Your task to perform on an android device: Search for "razer blade" on bestbuy.com, select the first entry, and add it to the cart. Image 0: 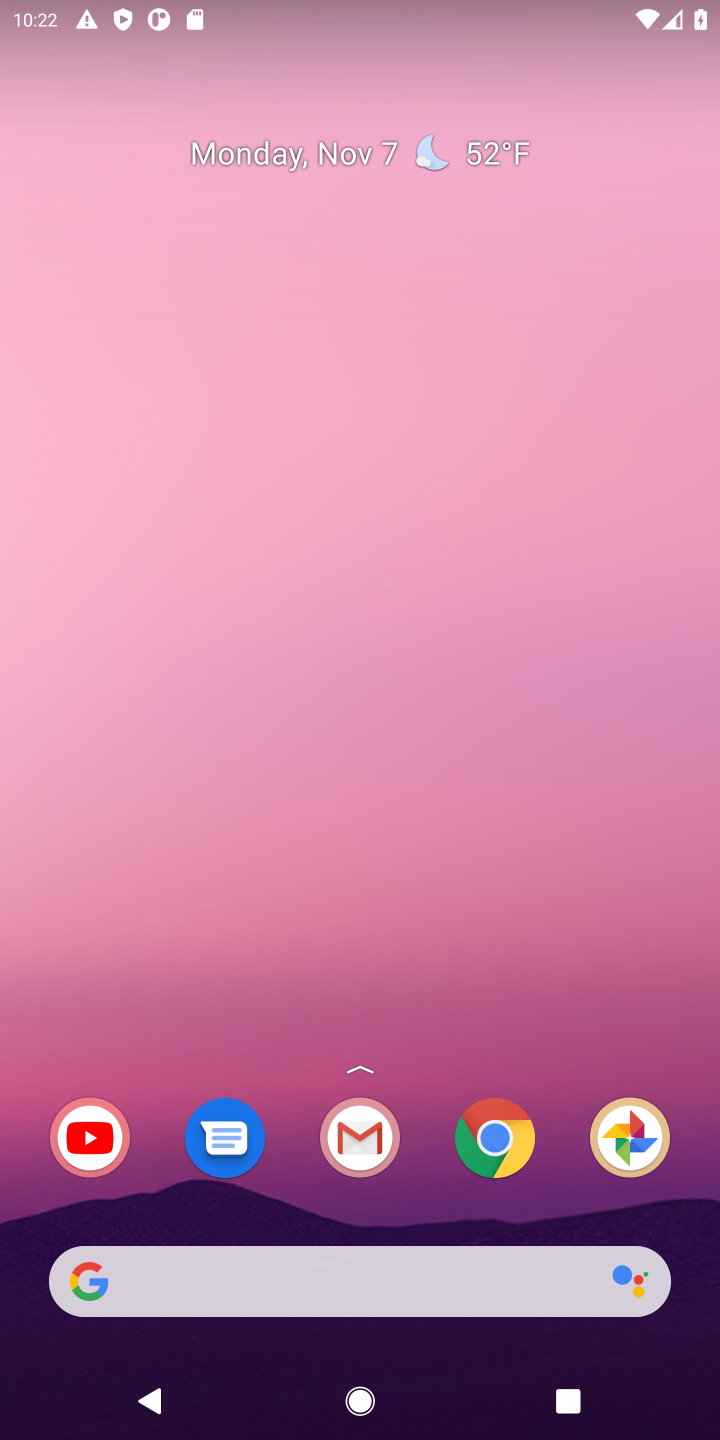
Step 0: click (481, 1146)
Your task to perform on an android device: Search for "razer blade" on bestbuy.com, select the first entry, and add it to the cart. Image 1: 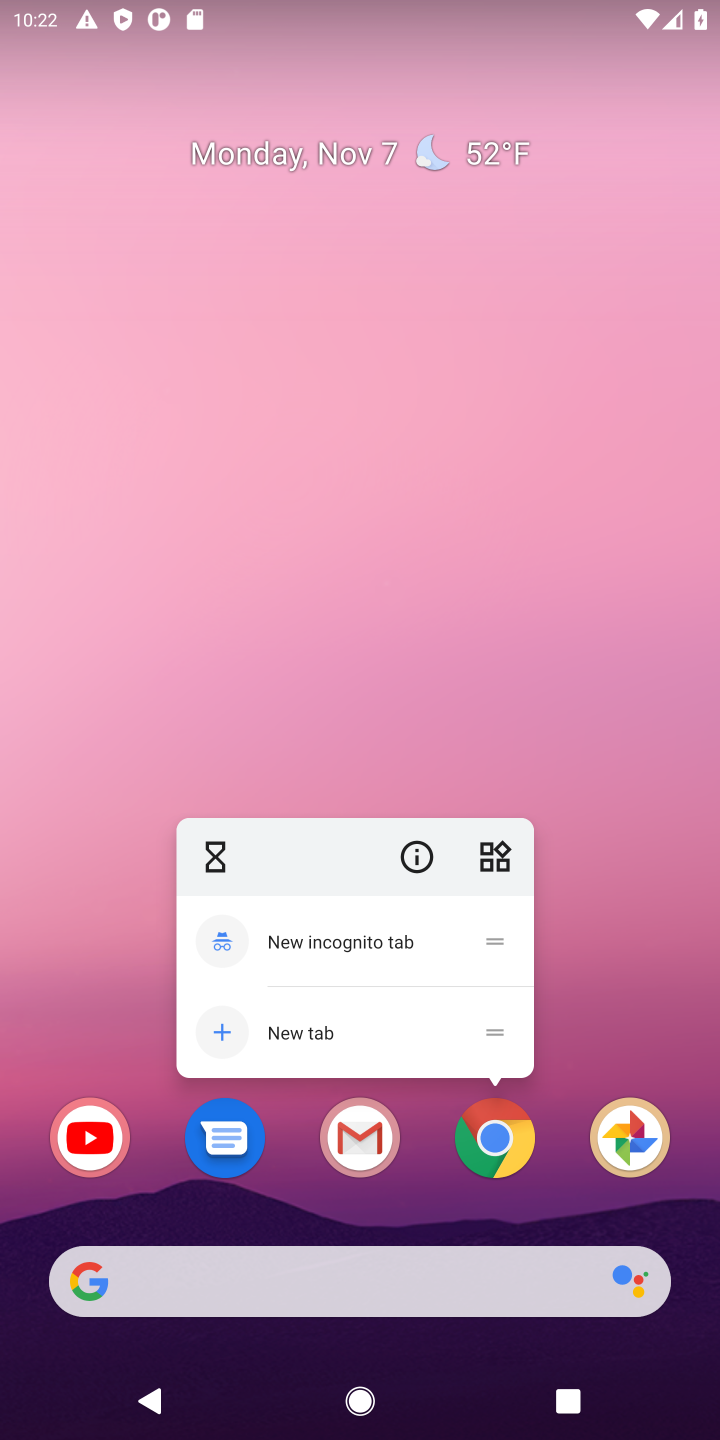
Step 1: click (508, 1141)
Your task to perform on an android device: Search for "razer blade" on bestbuy.com, select the first entry, and add it to the cart. Image 2: 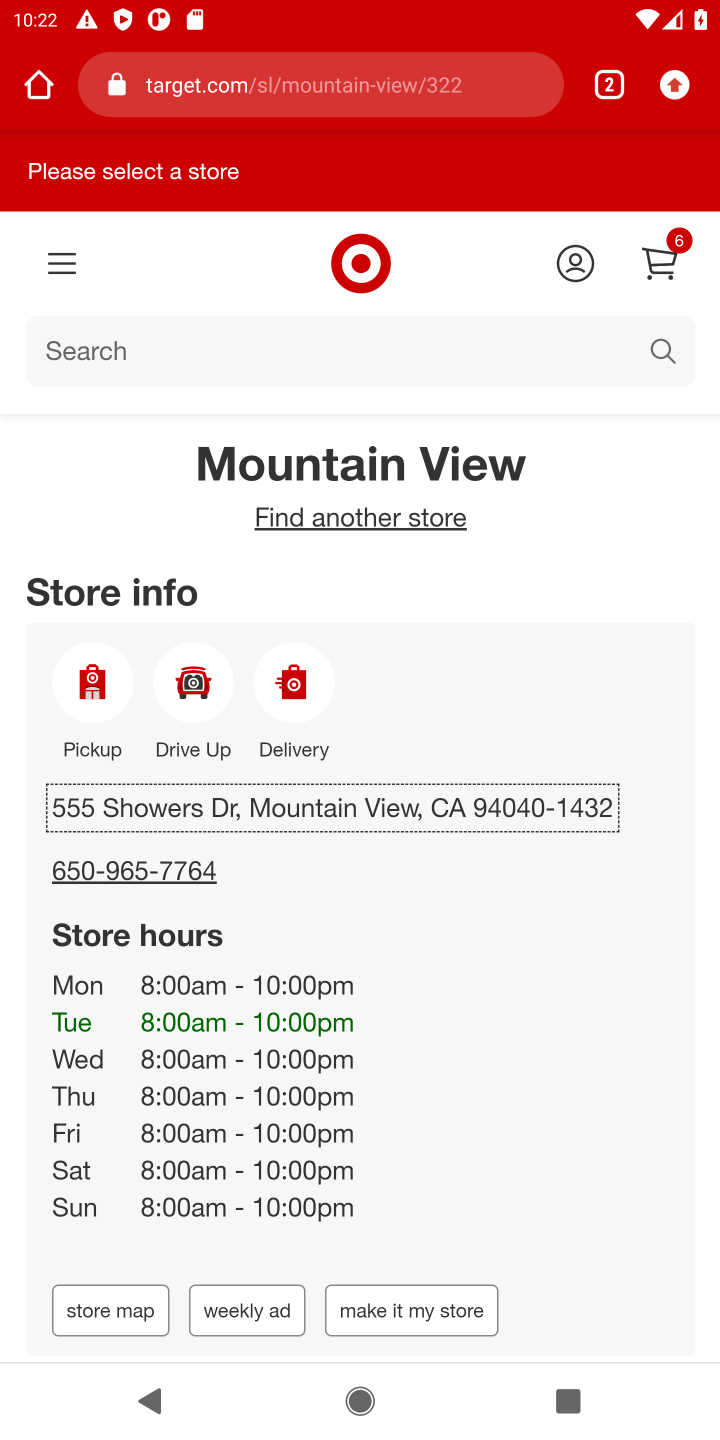
Step 2: click (380, 88)
Your task to perform on an android device: Search for "razer blade" on bestbuy.com, select the first entry, and add it to the cart. Image 3: 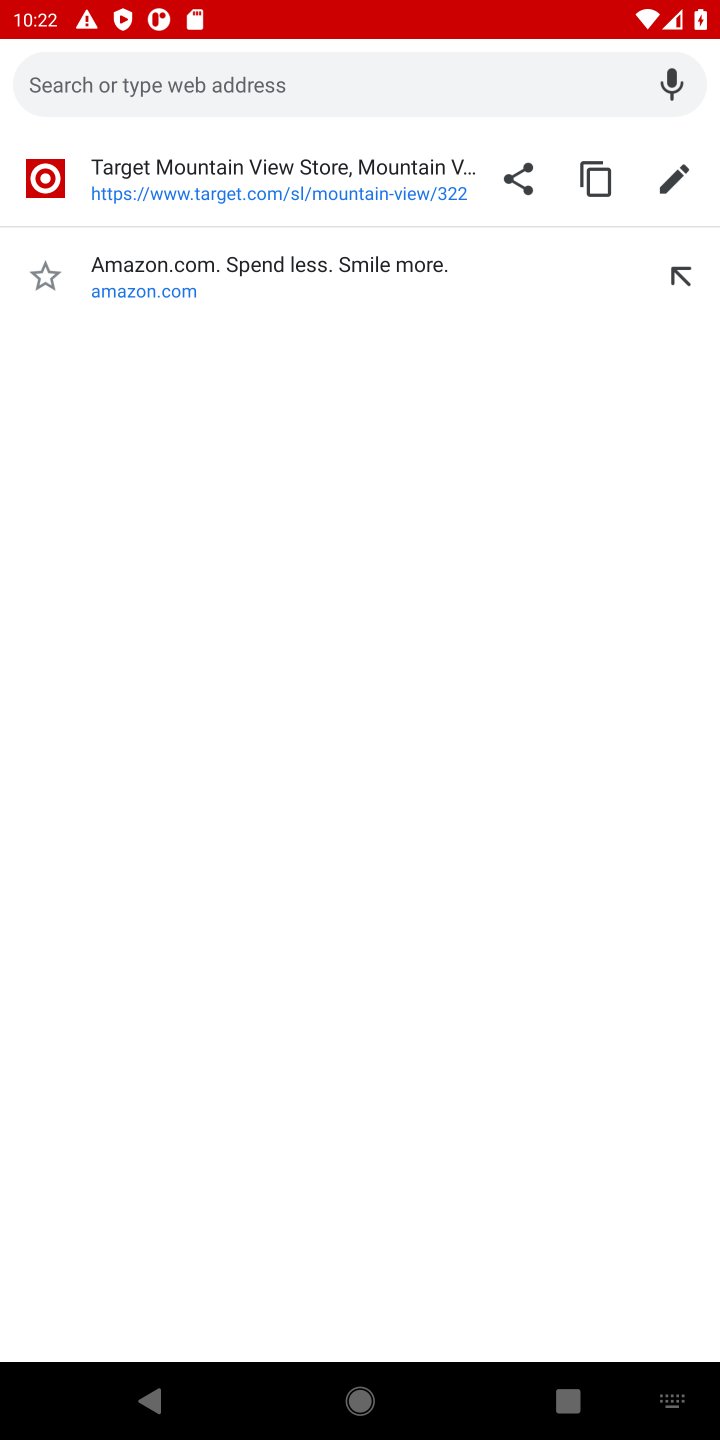
Step 3: type "bestbuy"
Your task to perform on an android device: Search for "razer blade" on bestbuy.com, select the first entry, and add it to the cart. Image 4: 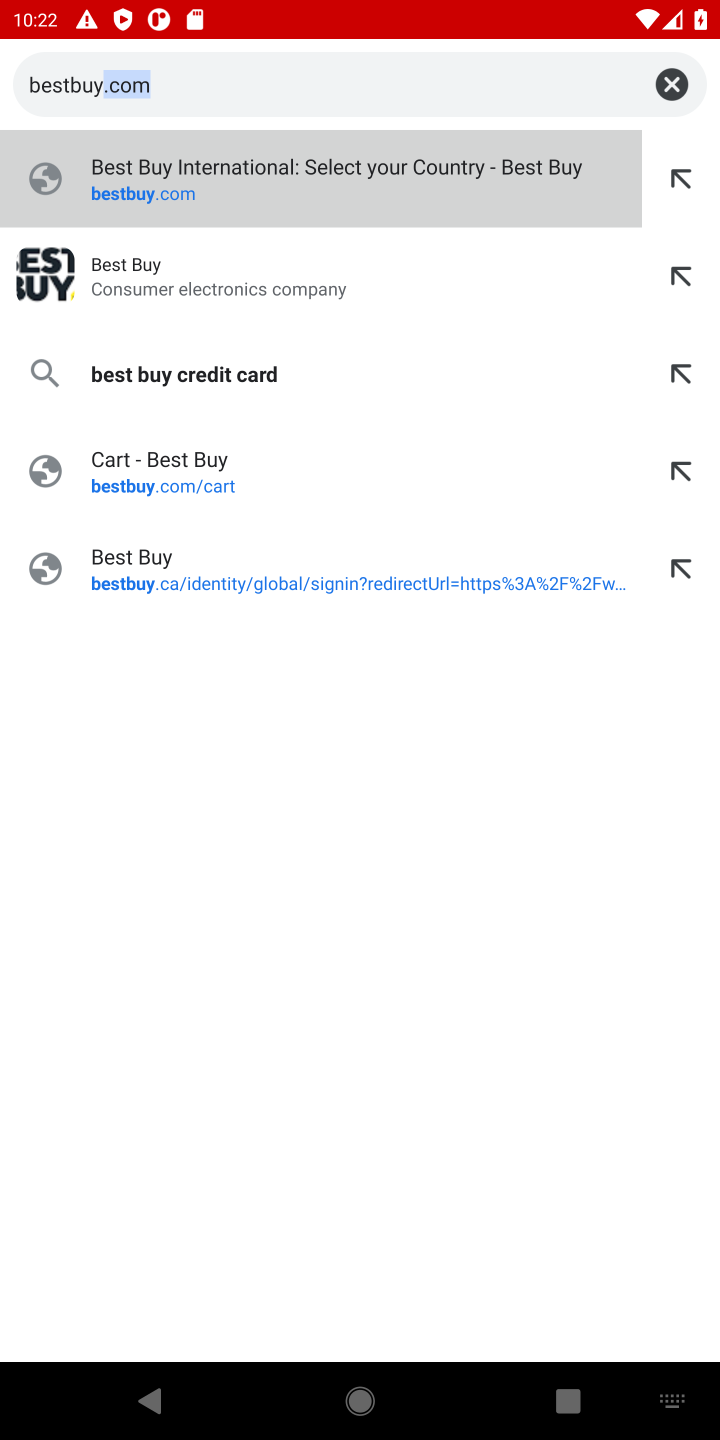
Step 4: click (204, 271)
Your task to perform on an android device: Search for "razer blade" on bestbuy.com, select the first entry, and add it to the cart. Image 5: 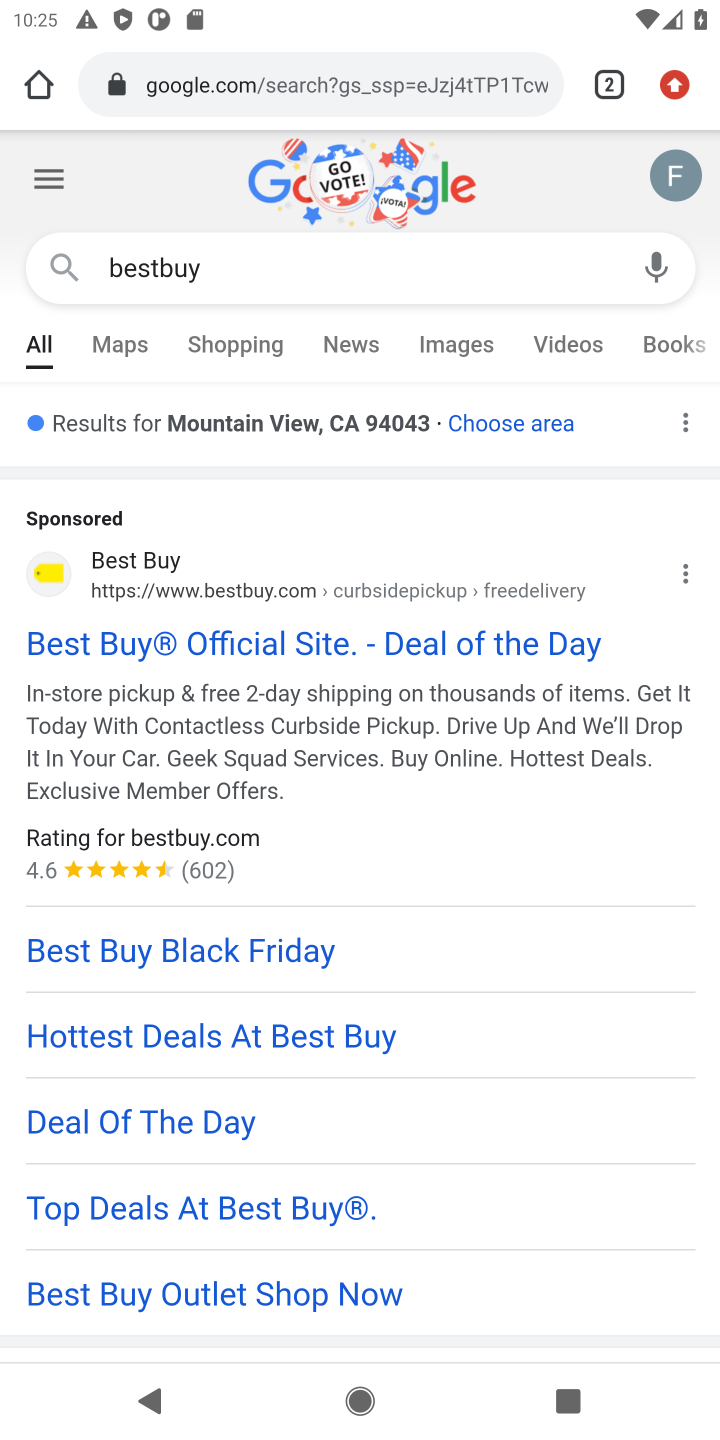
Step 5: click (221, 81)
Your task to perform on an android device: Search for "razer blade" on bestbuy.com, select the first entry, and add it to the cart. Image 6: 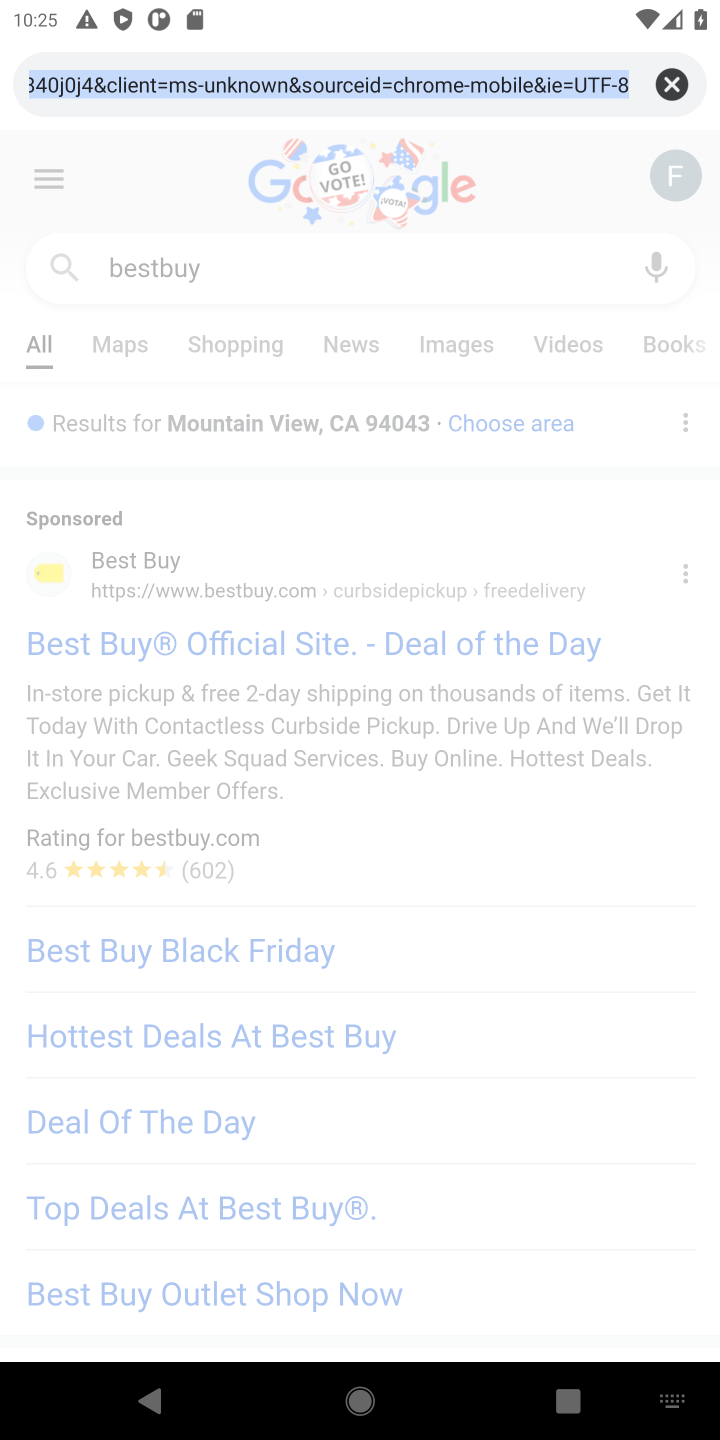
Step 6: click (675, 77)
Your task to perform on an android device: Search for "razer blade" on bestbuy.com, select the first entry, and add it to the cart. Image 7: 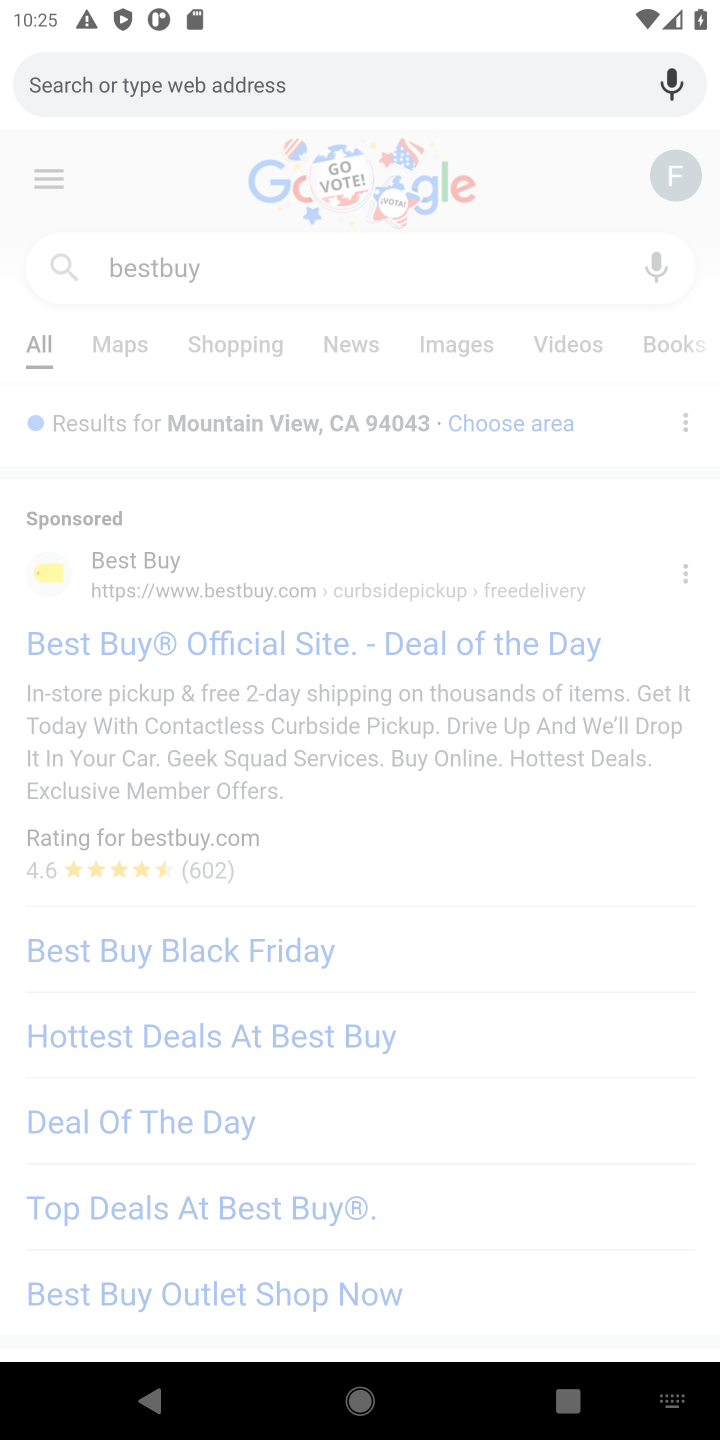
Step 7: type "bestbuy"
Your task to perform on an android device: Search for "razer blade" on bestbuy.com, select the first entry, and add it to the cart. Image 8: 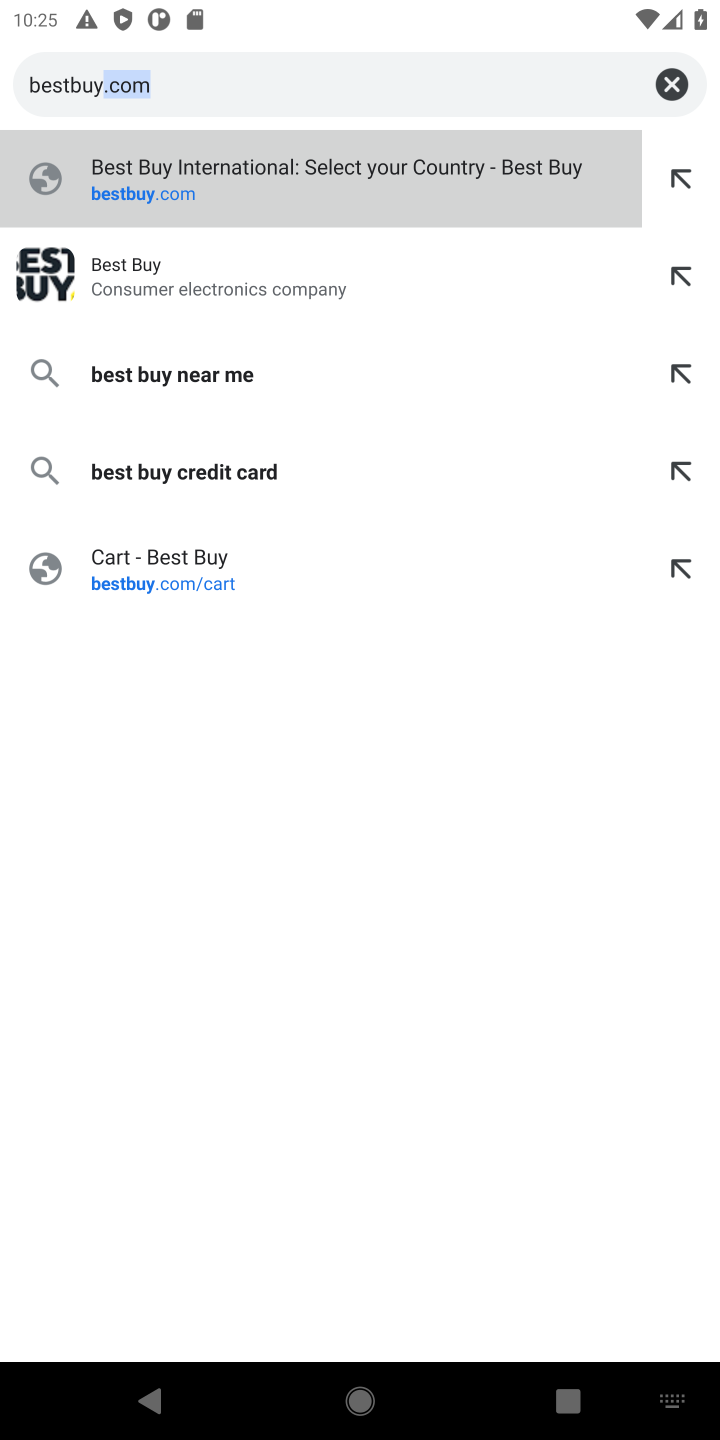
Step 8: click (114, 285)
Your task to perform on an android device: Search for "razer blade" on bestbuy.com, select the first entry, and add it to the cart. Image 9: 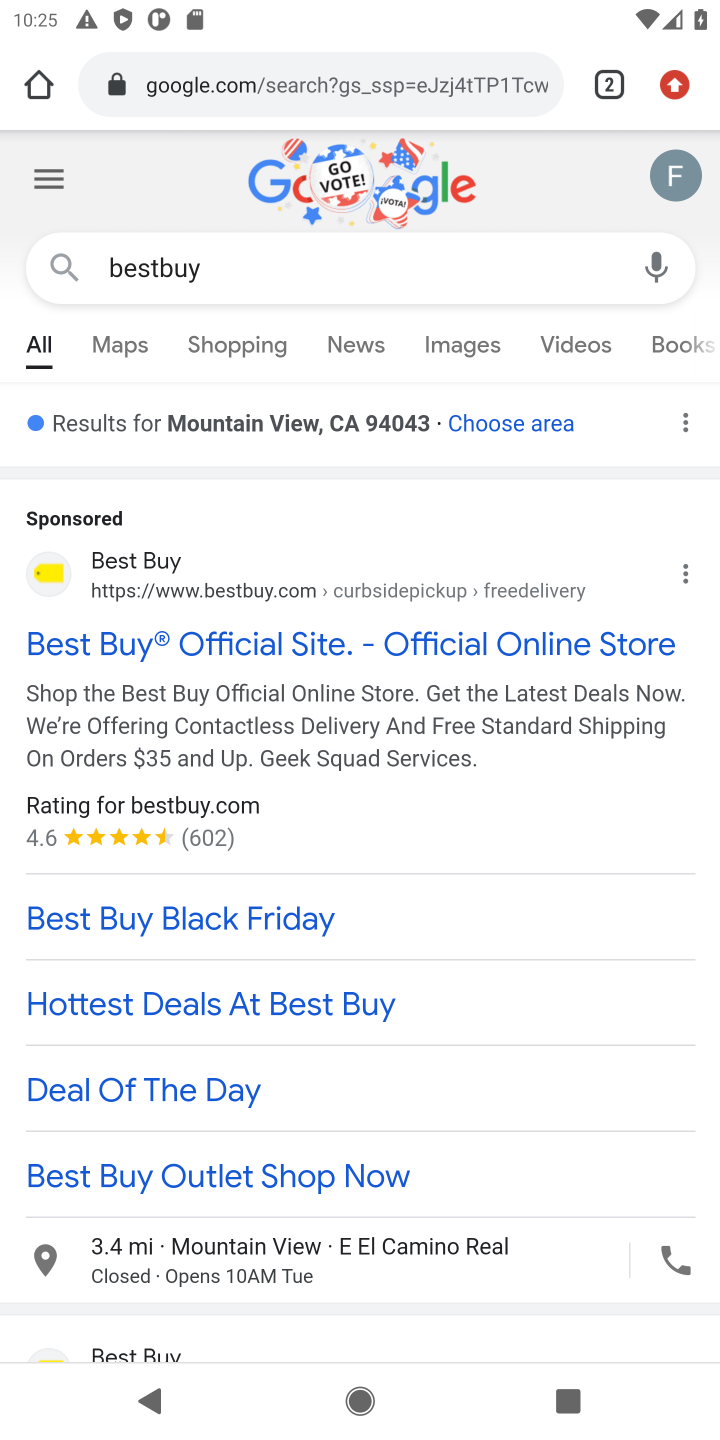
Step 9: drag from (322, 973) to (160, 288)
Your task to perform on an android device: Search for "razer blade" on bestbuy.com, select the first entry, and add it to the cart. Image 10: 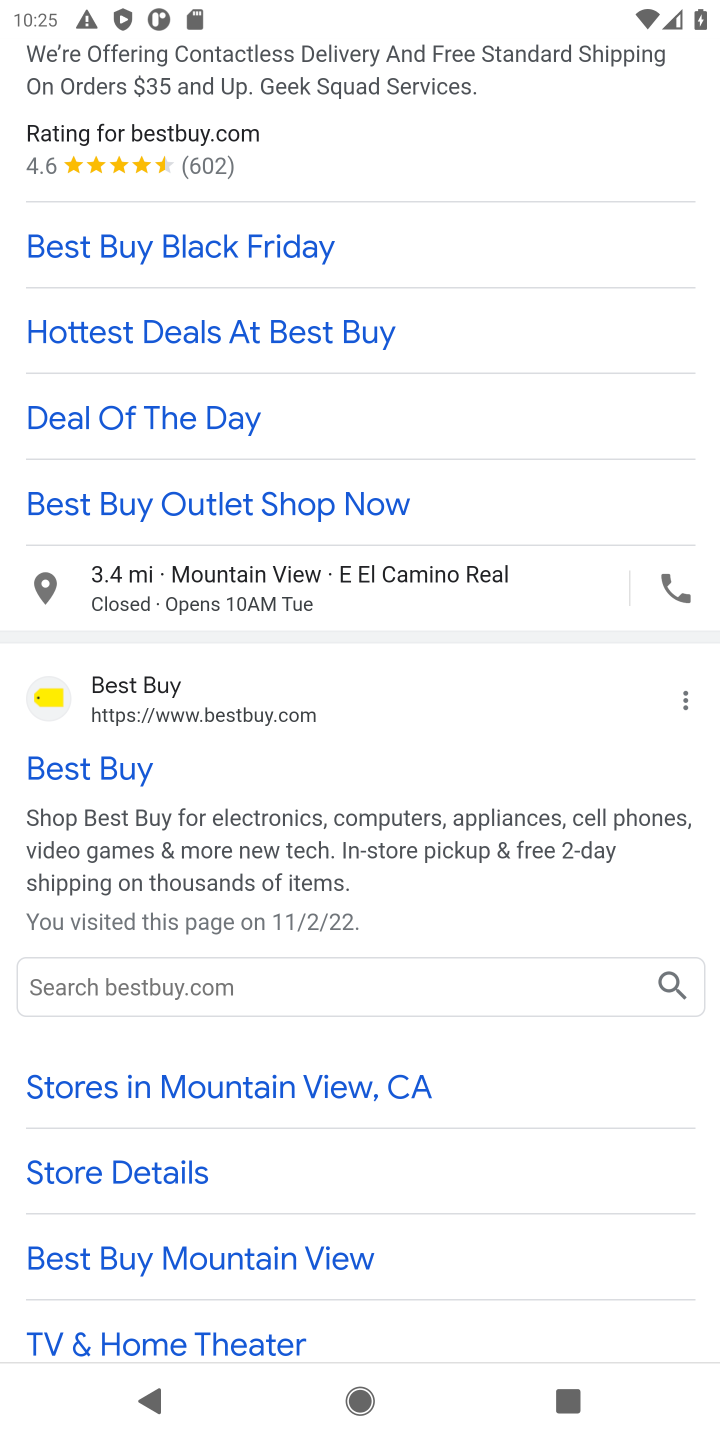
Step 10: click (123, 765)
Your task to perform on an android device: Search for "razer blade" on bestbuy.com, select the first entry, and add it to the cart. Image 11: 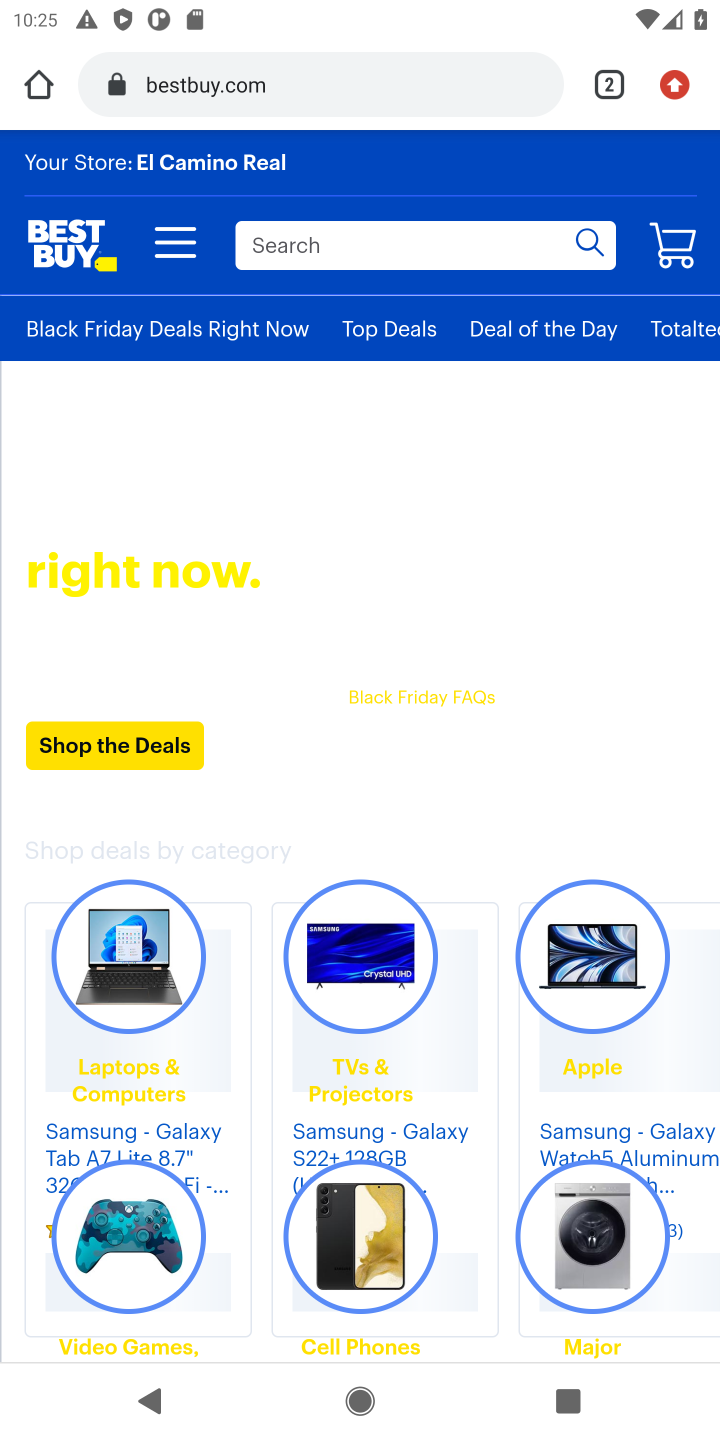
Step 11: click (398, 248)
Your task to perform on an android device: Search for "razer blade" on bestbuy.com, select the first entry, and add it to the cart. Image 12: 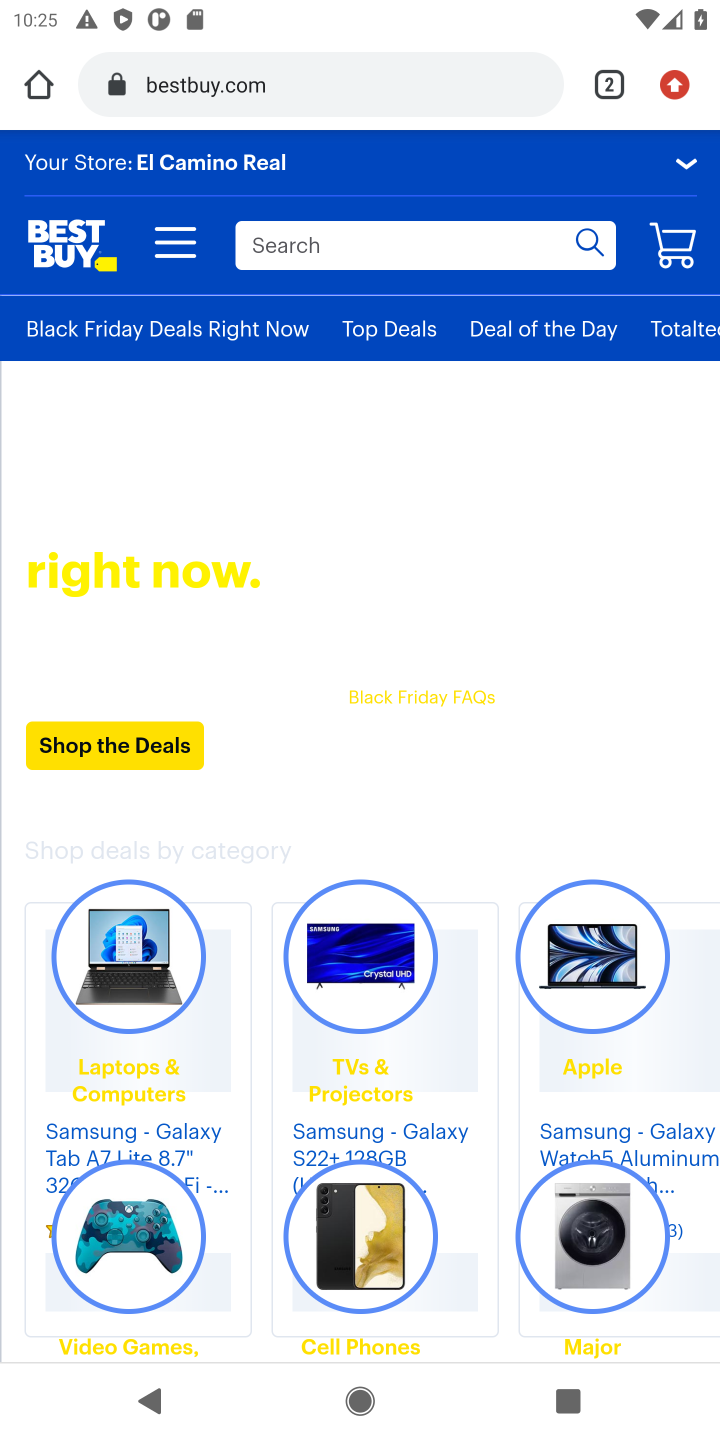
Step 12: click (280, 251)
Your task to perform on an android device: Search for "razer blade" on bestbuy.com, select the first entry, and add it to the cart. Image 13: 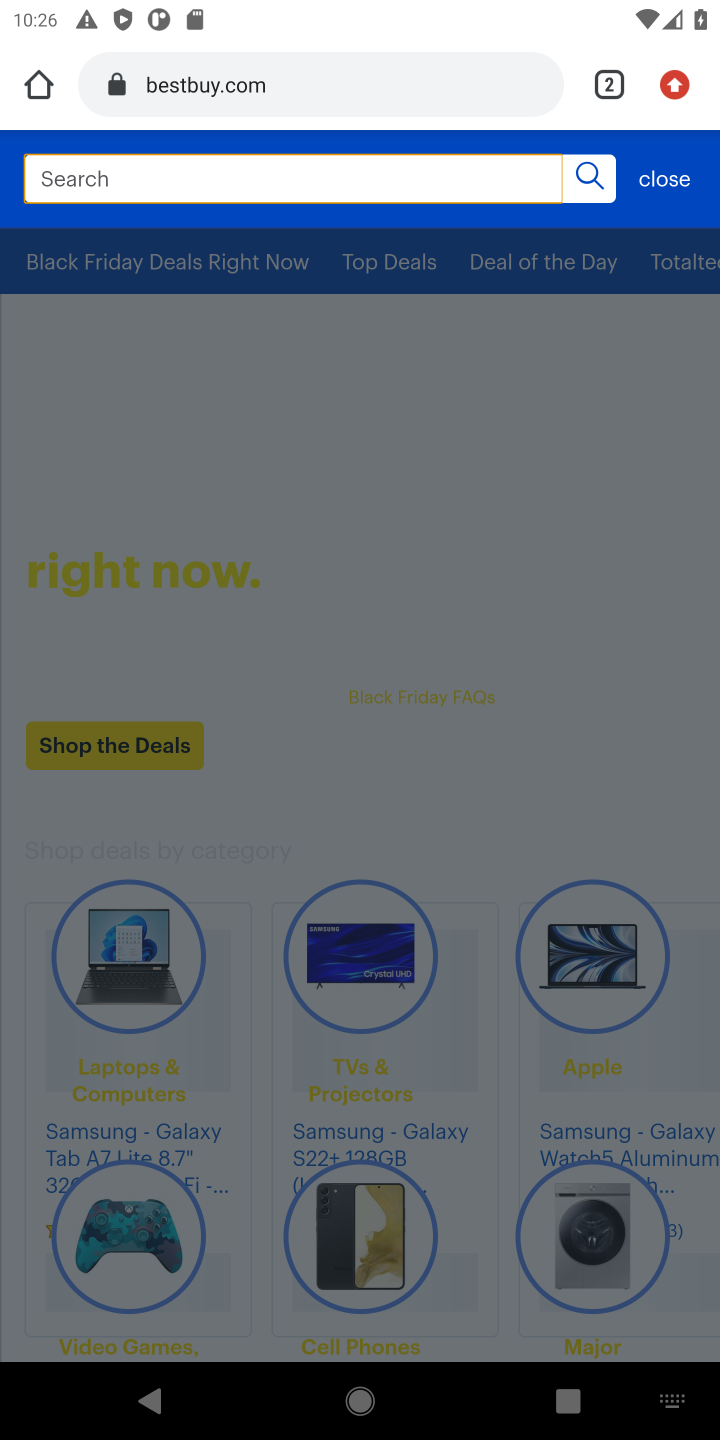
Step 13: type "razer blade"
Your task to perform on an android device: Search for "razer blade" on bestbuy.com, select the first entry, and add it to the cart. Image 14: 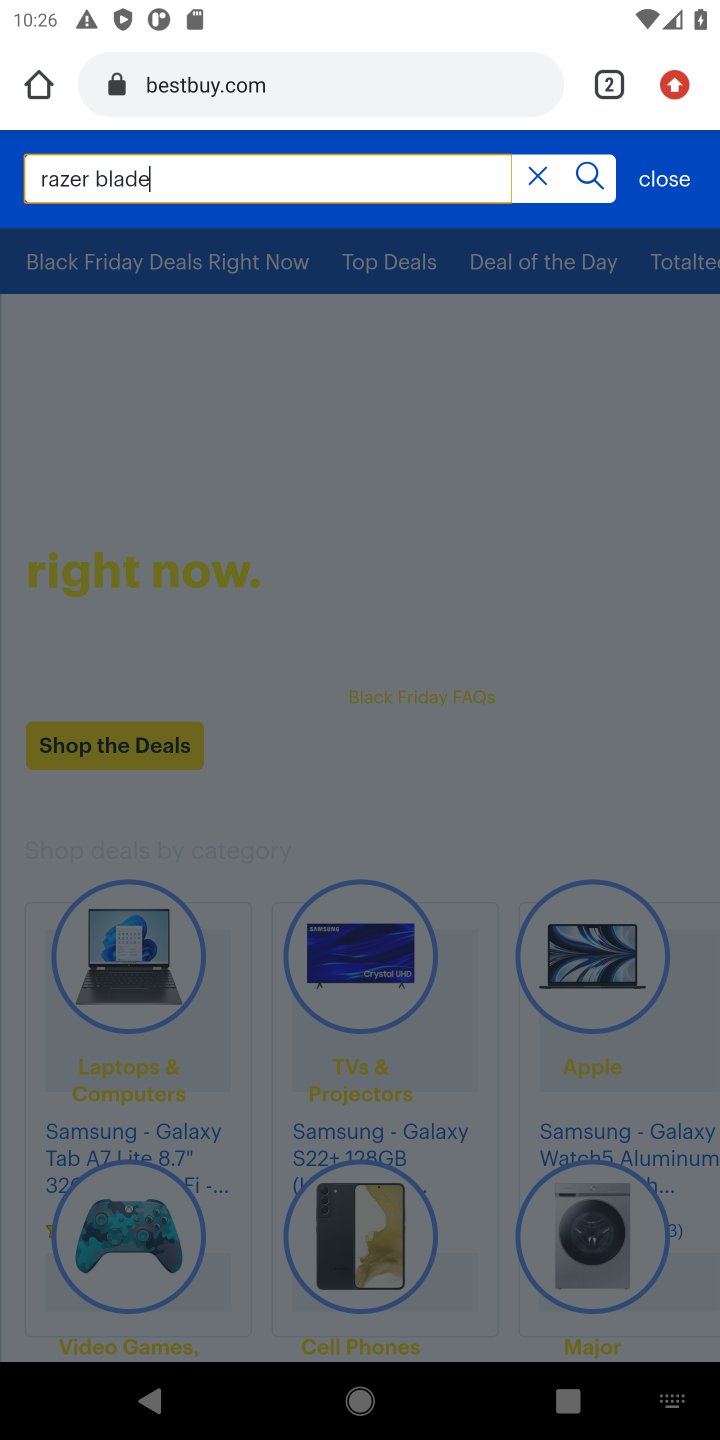
Step 14: type ""
Your task to perform on an android device: Search for "razer blade" on bestbuy.com, select the first entry, and add it to the cart. Image 15: 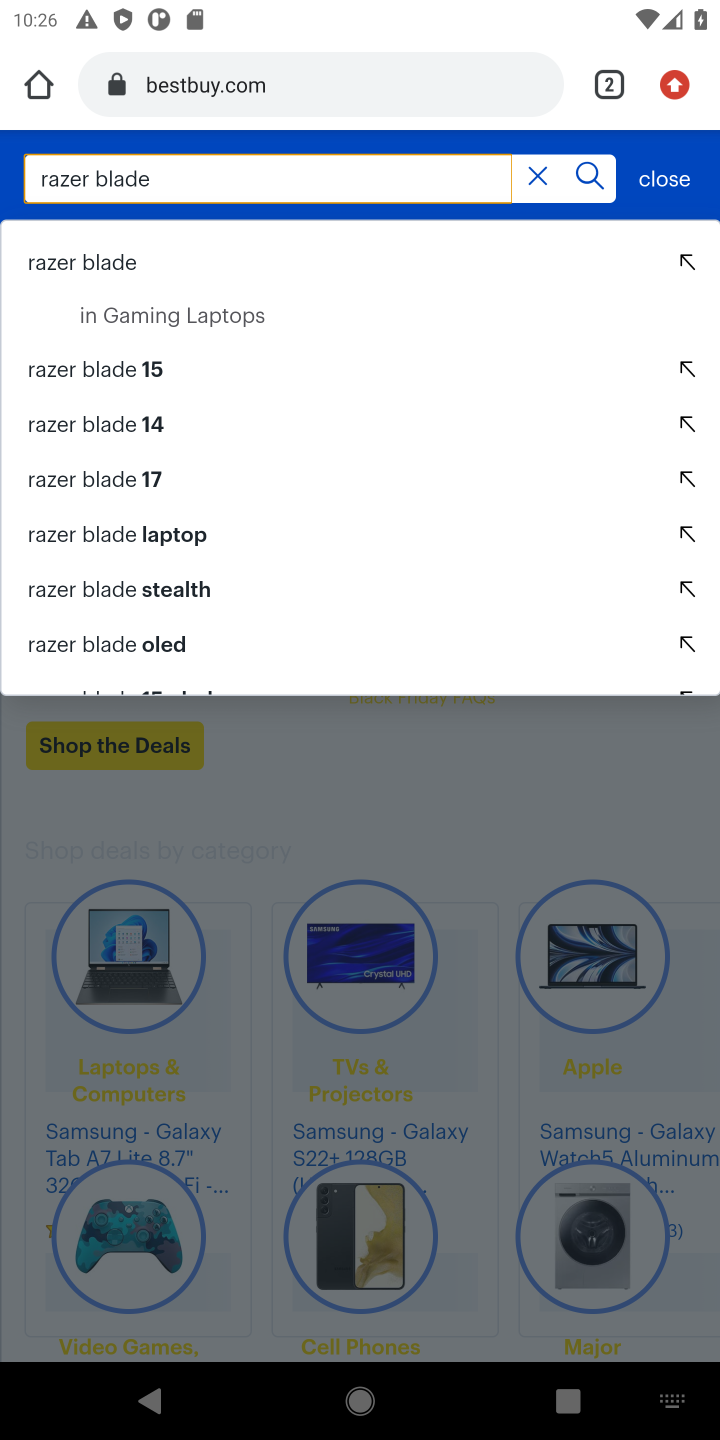
Step 15: click (102, 365)
Your task to perform on an android device: Search for "razer blade" on bestbuy.com, select the first entry, and add it to the cart. Image 16: 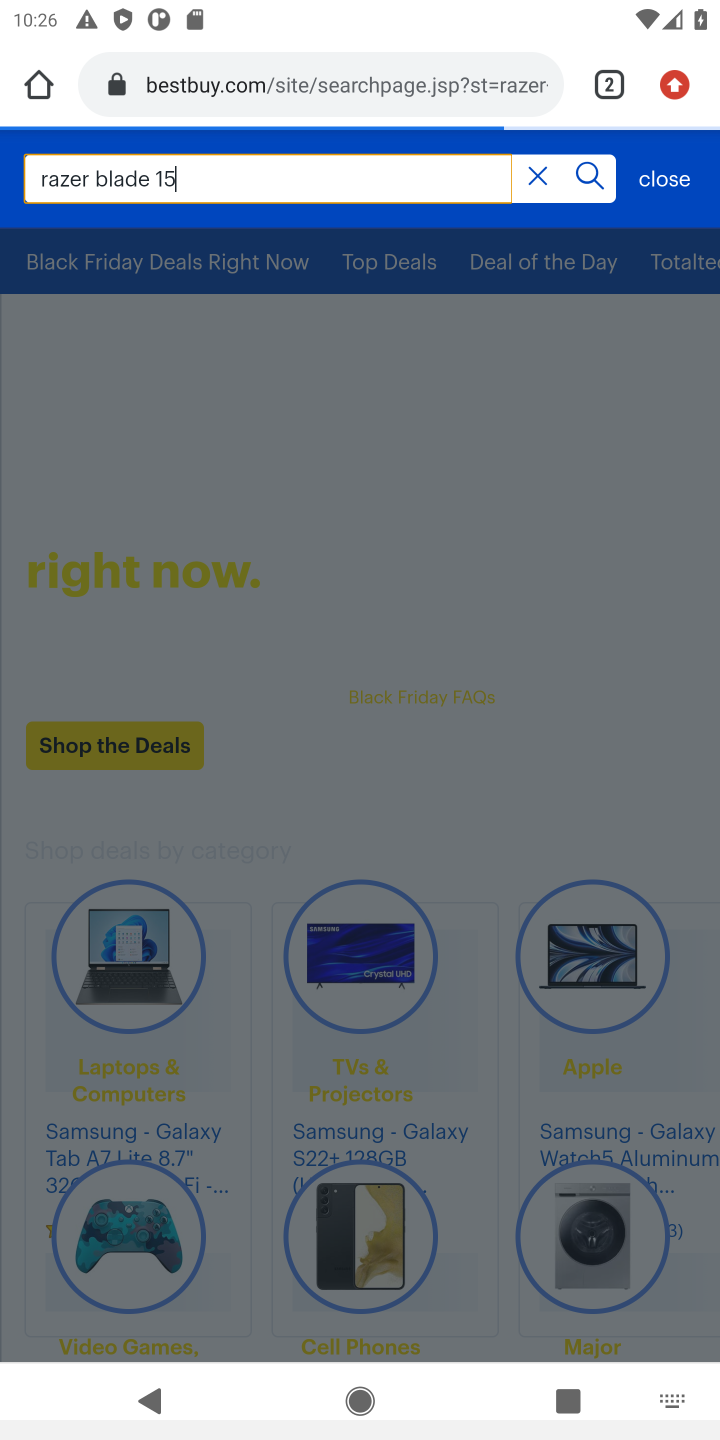
Step 16: click (602, 173)
Your task to perform on an android device: Search for "razer blade" on bestbuy.com, select the first entry, and add it to the cart. Image 17: 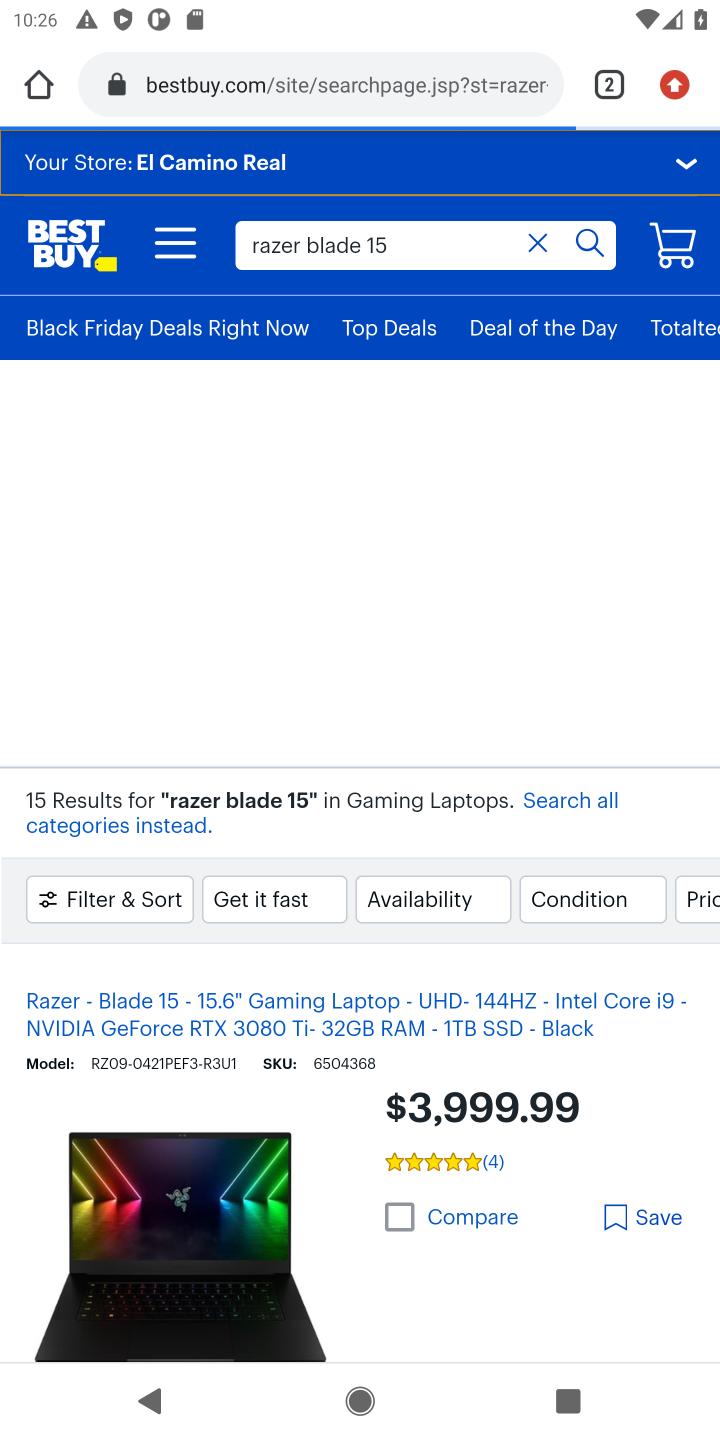
Step 17: click (237, 1232)
Your task to perform on an android device: Search for "razer blade" on bestbuy.com, select the first entry, and add it to the cart. Image 18: 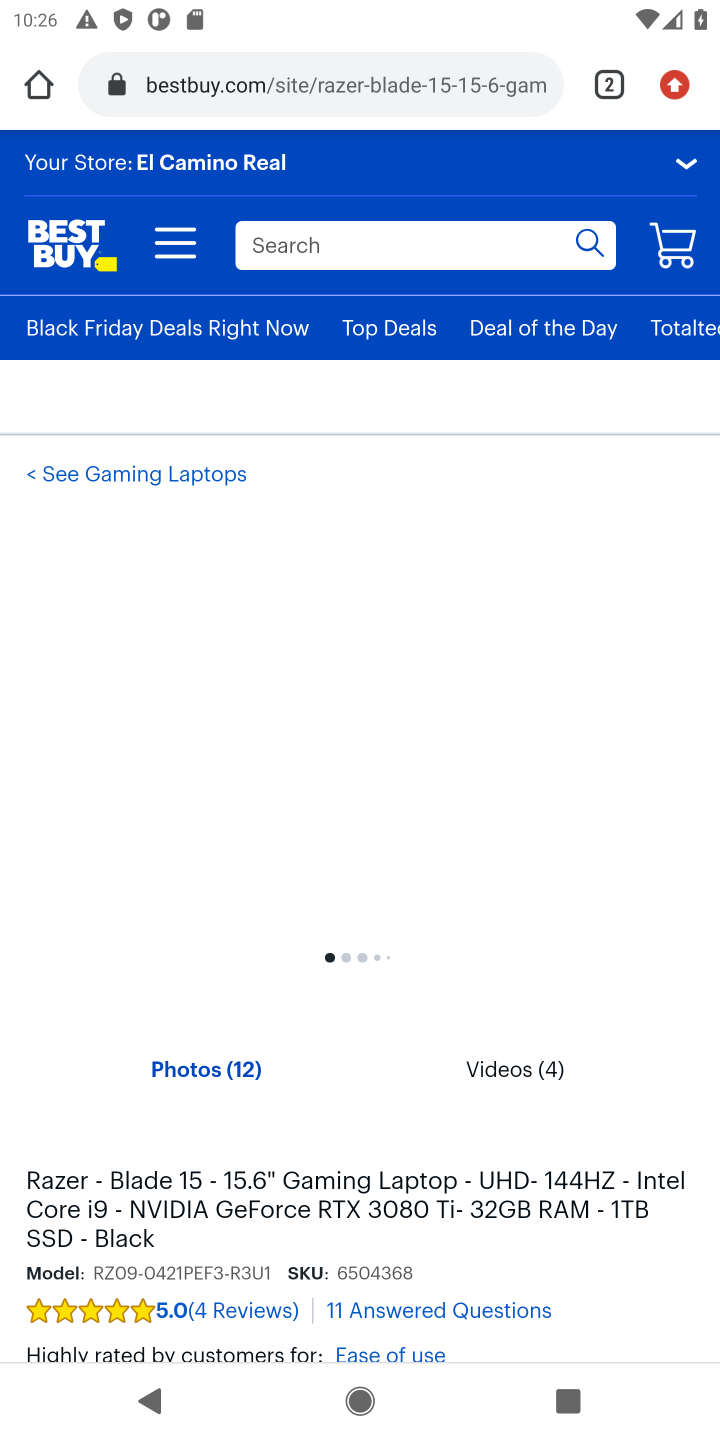
Step 18: drag from (502, 1002) to (422, 522)
Your task to perform on an android device: Search for "razer blade" on bestbuy.com, select the first entry, and add it to the cart. Image 19: 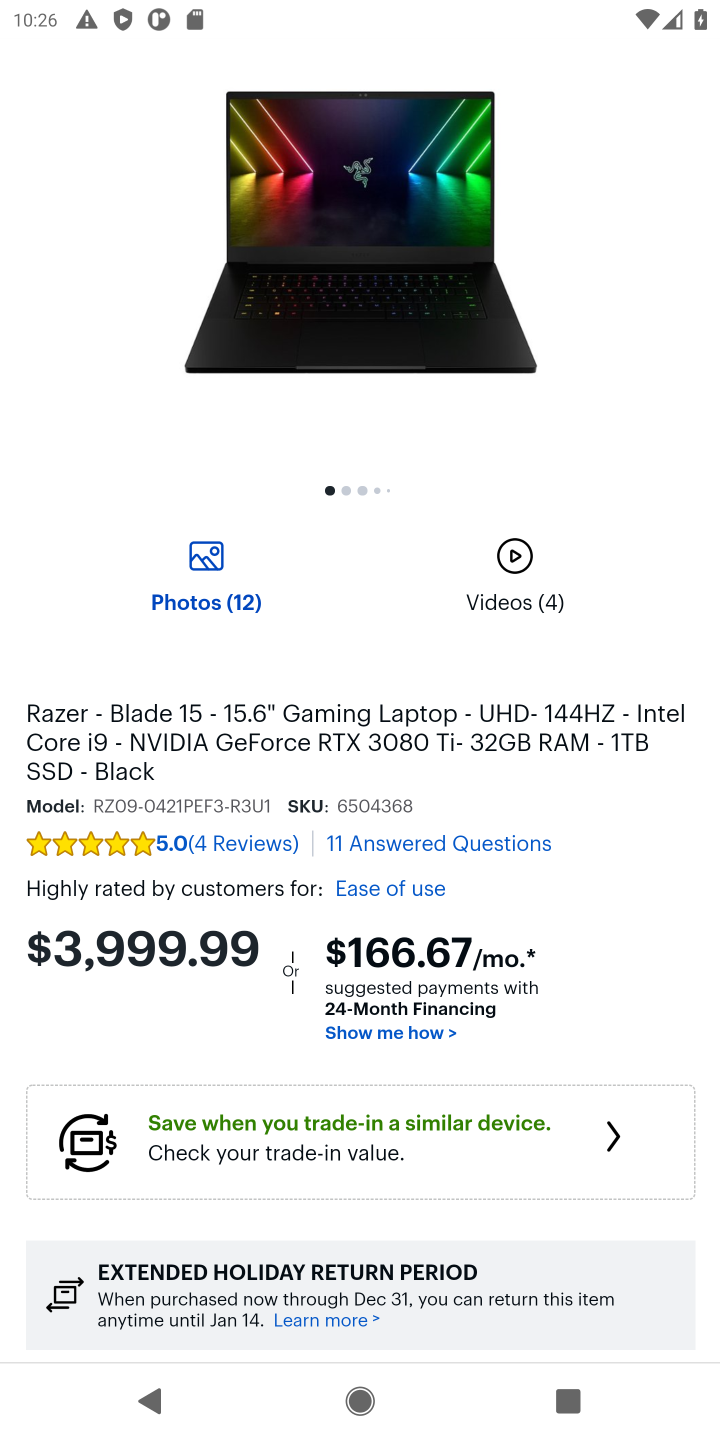
Step 19: drag from (418, 1100) to (418, 755)
Your task to perform on an android device: Search for "razer blade" on bestbuy.com, select the first entry, and add it to the cart. Image 20: 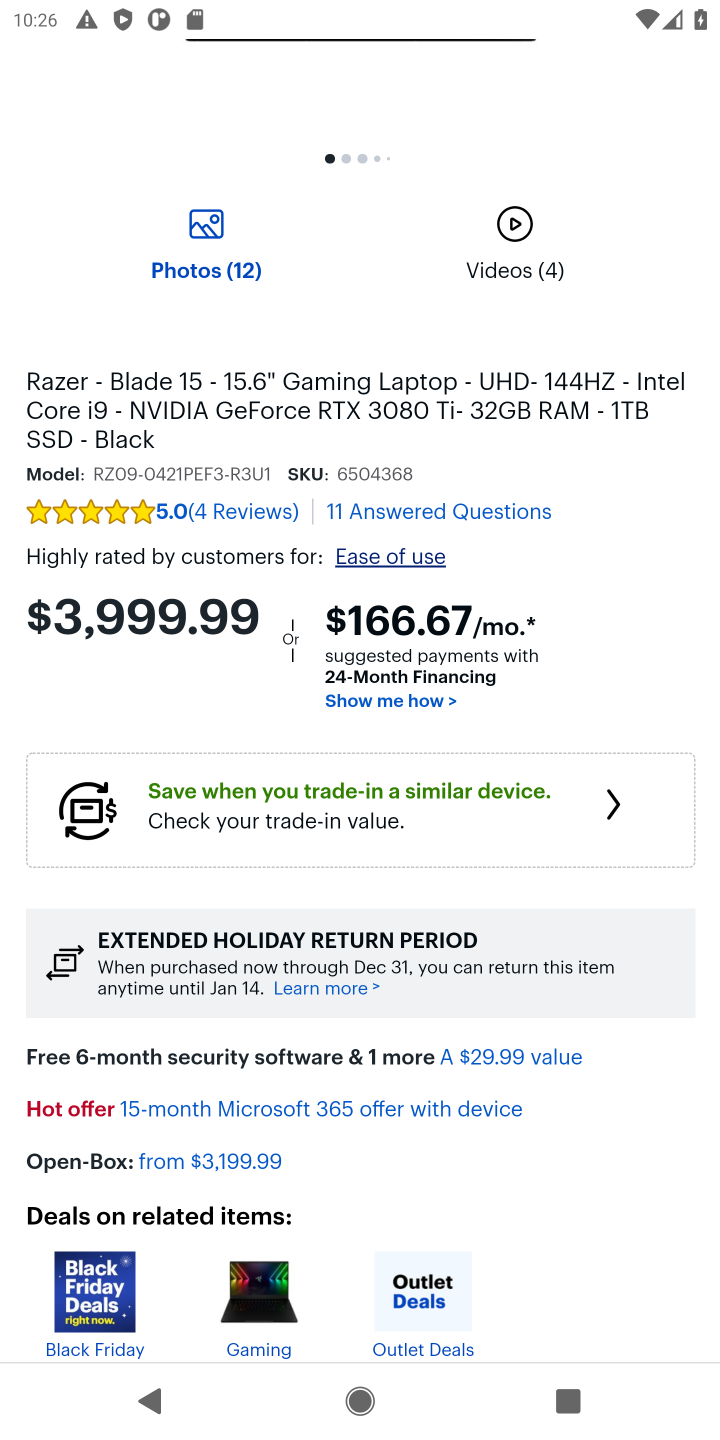
Step 20: drag from (566, 1078) to (566, 719)
Your task to perform on an android device: Search for "razer blade" on bestbuy.com, select the first entry, and add it to the cart. Image 21: 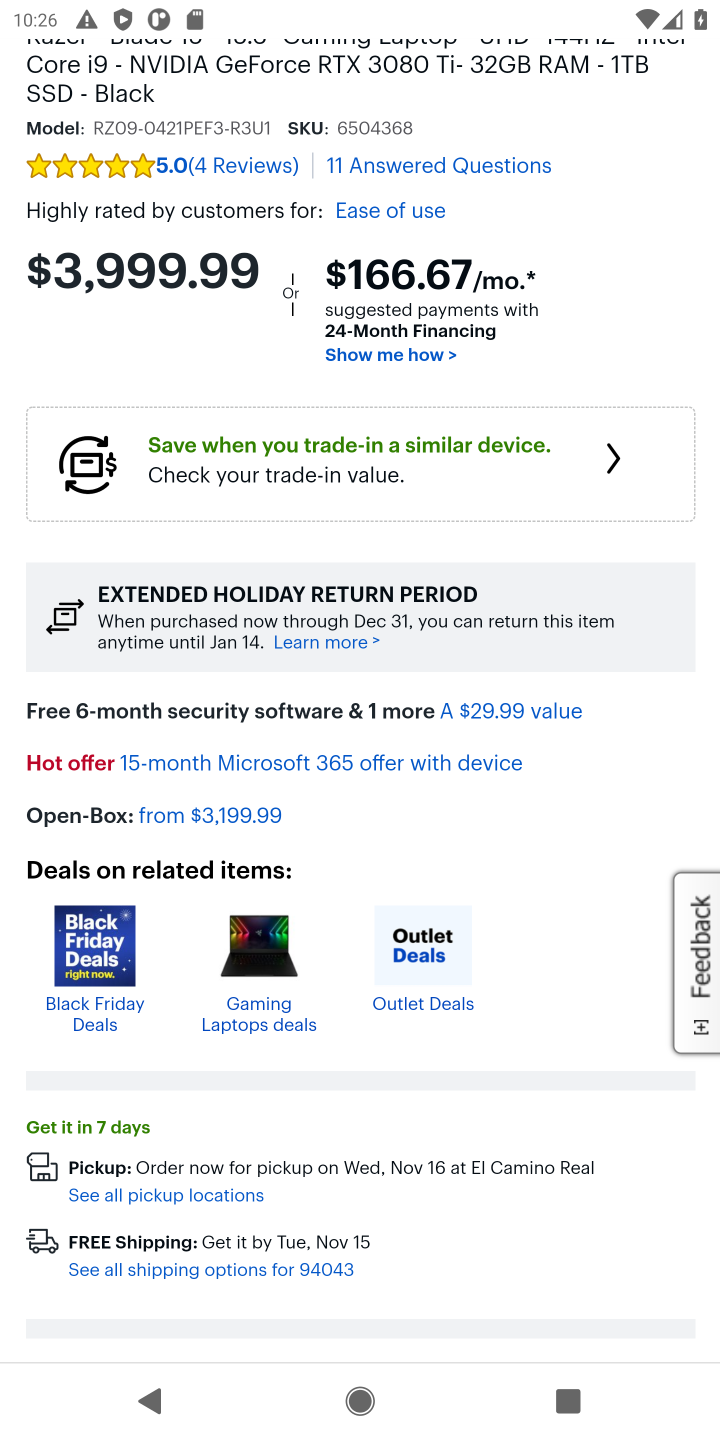
Step 21: drag from (435, 817) to (451, 240)
Your task to perform on an android device: Search for "razer blade" on bestbuy.com, select the first entry, and add it to the cart. Image 22: 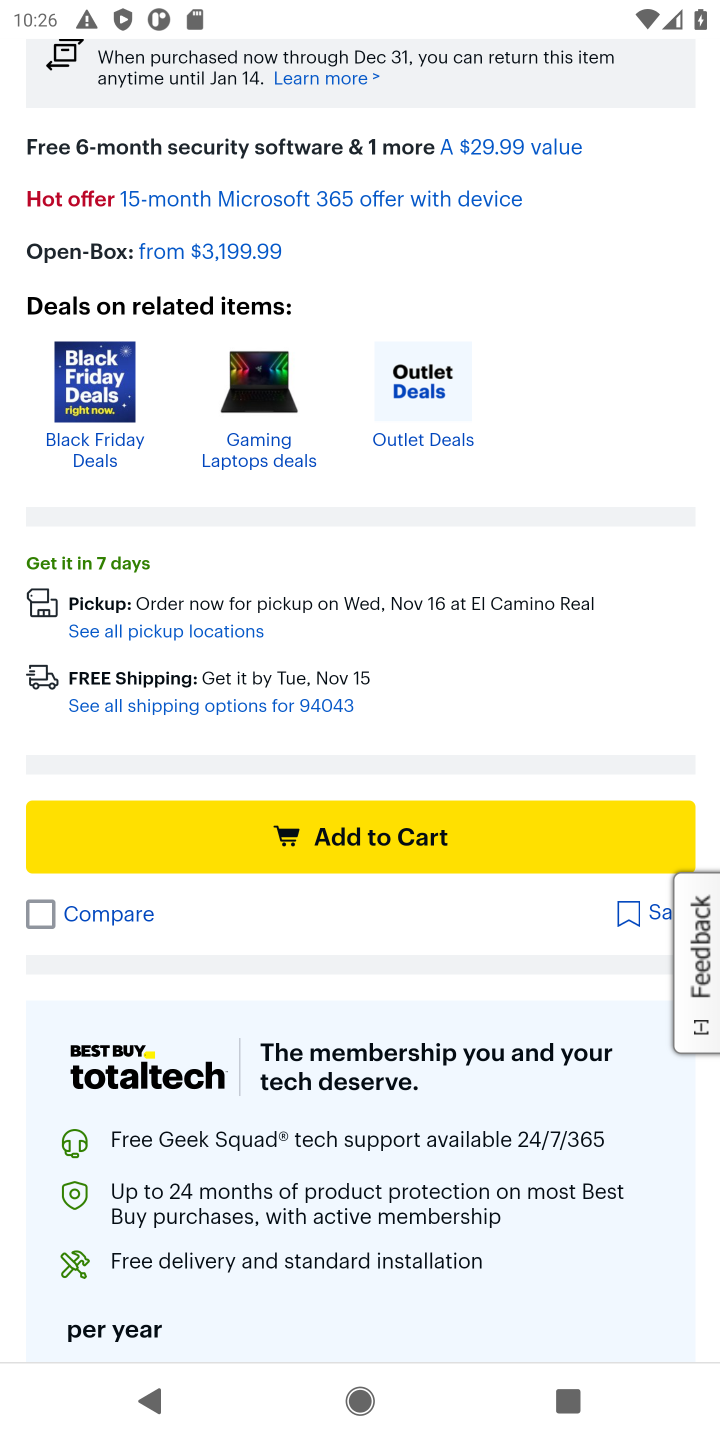
Step 22: click (400, 851)
Your task to perform on an android device: Search for "razer blade" on bestbuy.com, select the first entry, and add it to the cart. Image 23: 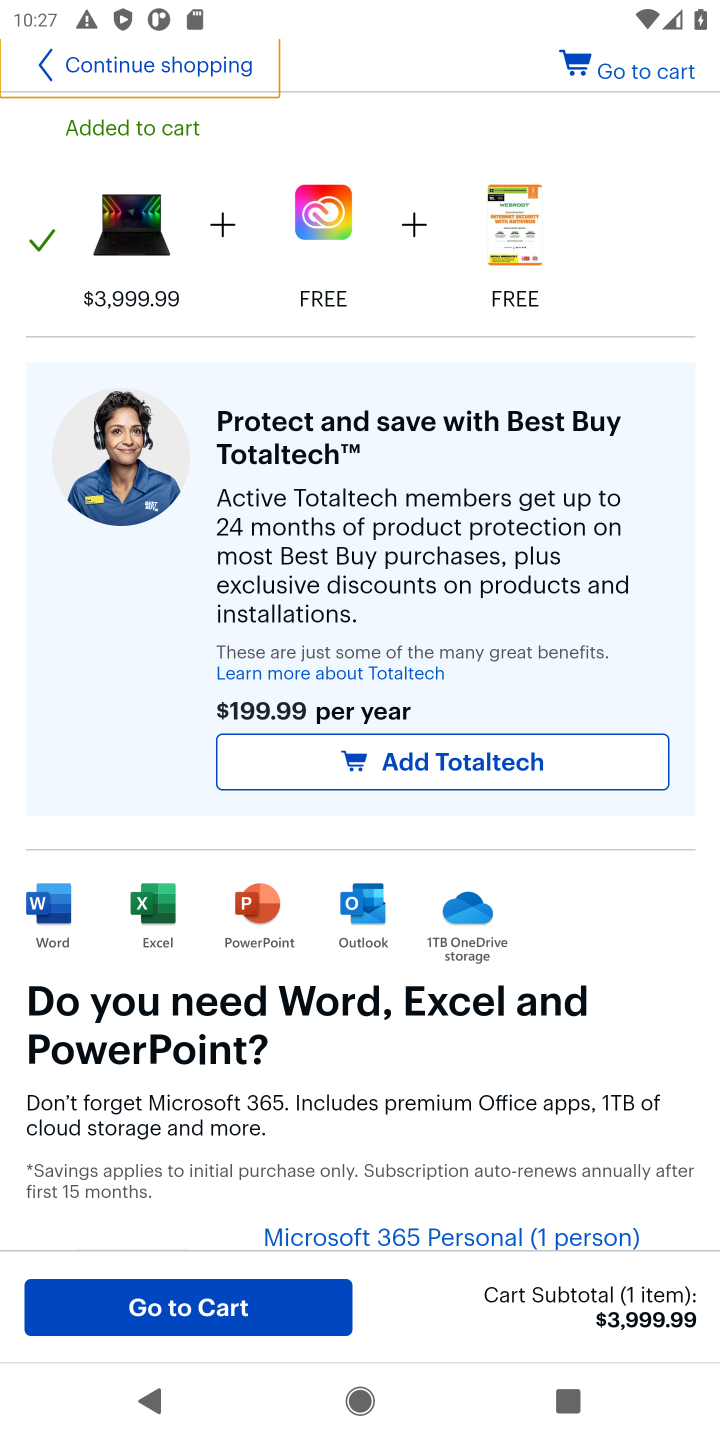
Step 23: task complete